Your task to perform on an android device: turn on data saver in the chrome app Image 0: 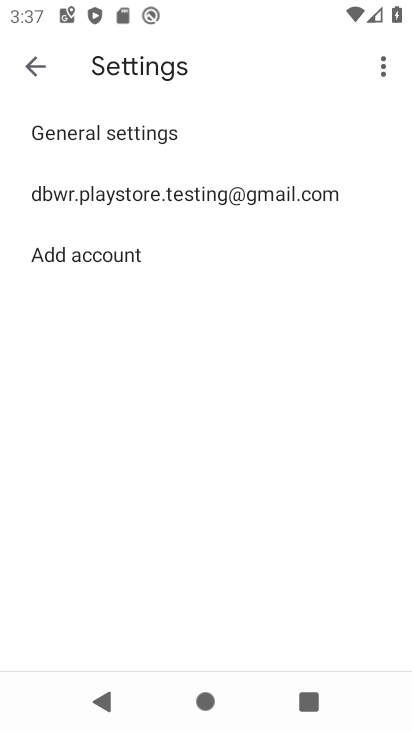
Step 0: press home button
Your task to perform on an android device: turn on data saver in the chrome app Image 1: 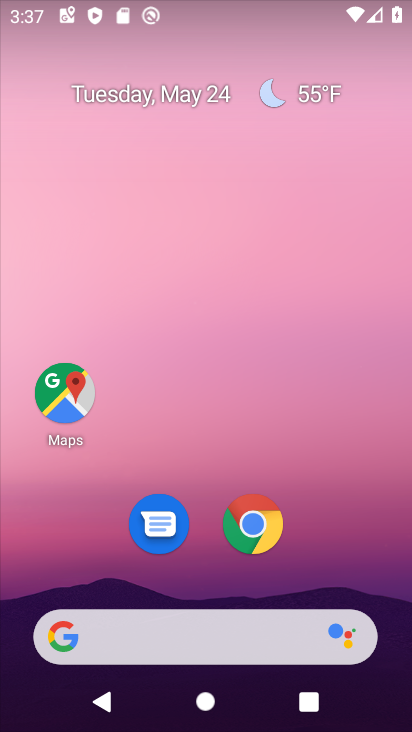
Step 1: click (263, 530)
Your task to perform on an android device: turn on data saver in the chrome app Image 2: 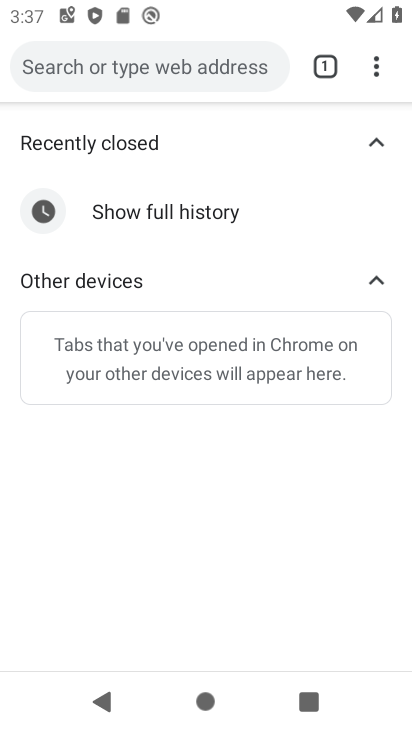
Step 2: click (370, 69)
Your task to perform on an android device: turn on data saver in the chrome app Image 3: 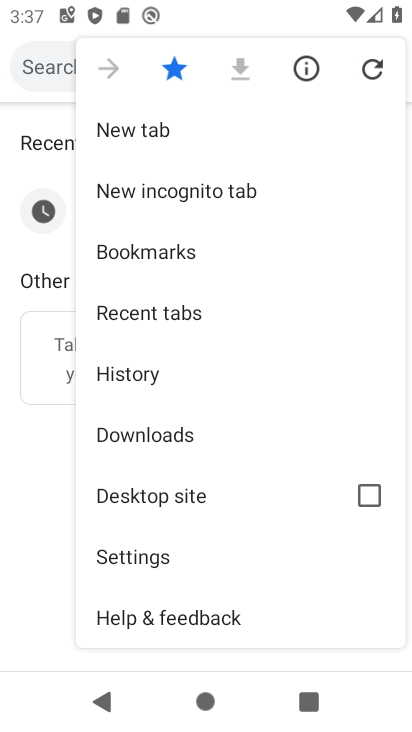
Step 3: click (143, 544)
Your task to perform on an android device: turn on data saver in the chrome app Image 4: 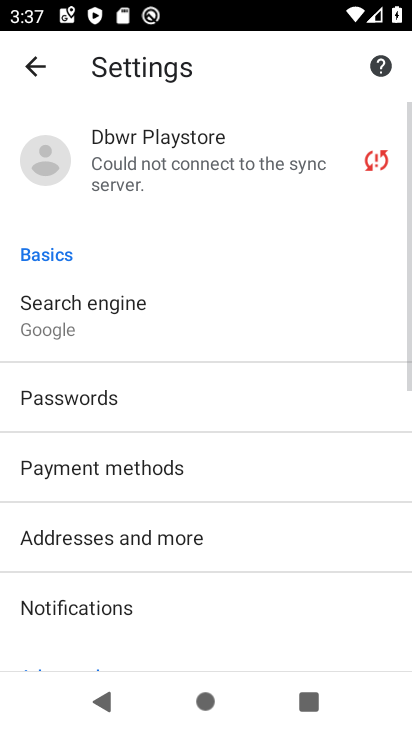
Step 4: drag from (221, 512) to (255, 89)
Your task to perform on an android device: turn on data saver in the chrome app Image 5: 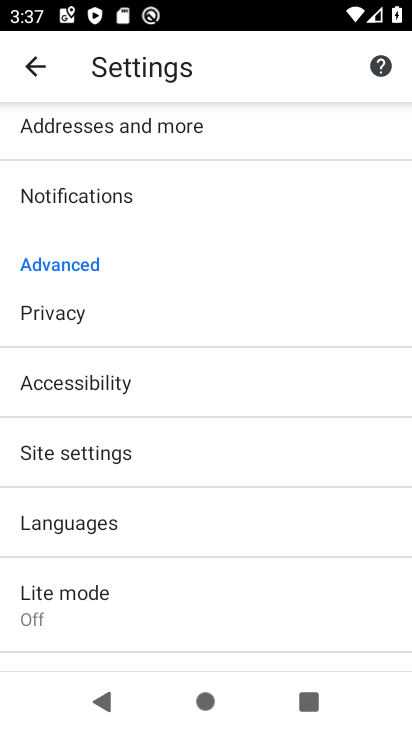
Step 5: click (157, 607)
Your task to perform on an android device: turn on data saver in the chrome app Image 6: 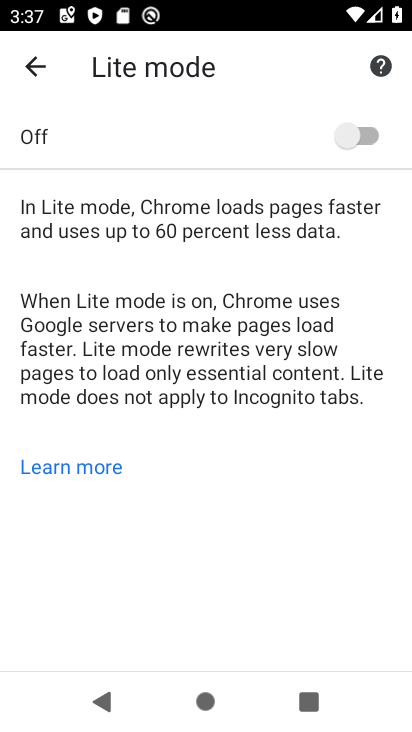
Step 6: click (354, 124)
Your task to perform on an android device: turn on data saver in the chrome app Image 7: 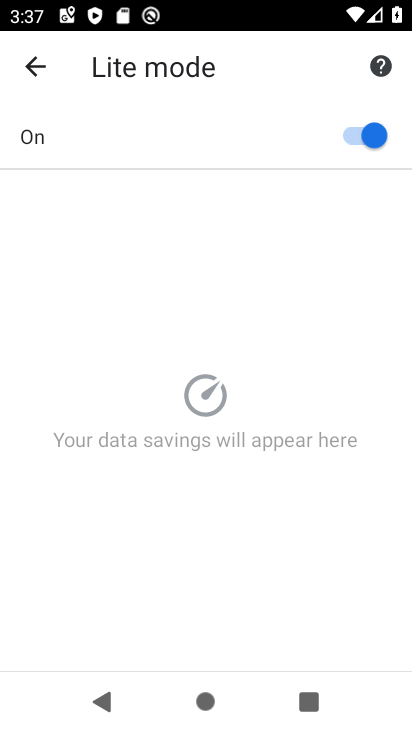
Step 7: task complete